Your task to perform on an android device: turn vacation reply on in the gmail app Image 0: 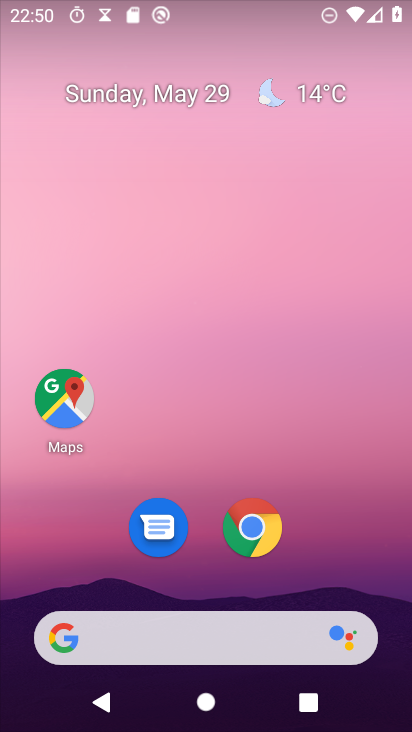
Step 0: press home button
Your task to perform on an android device: turn vacation reply on in the gmail app Image 1: 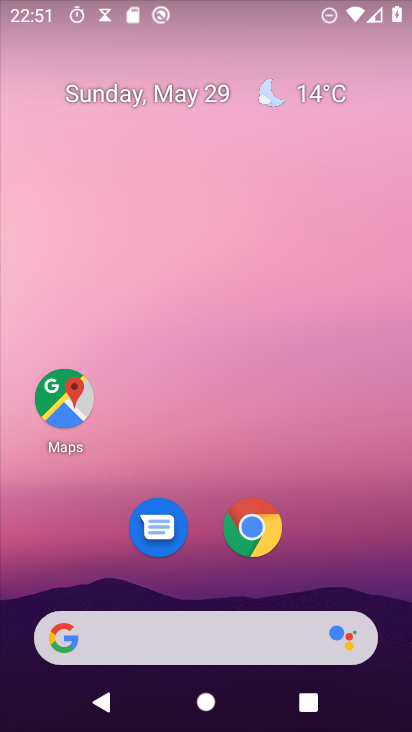
Step 1: drag from (192, 637) to (216, 114)
Your task to perform on an android device: turn vacation reply on in the gmail app Image 2: 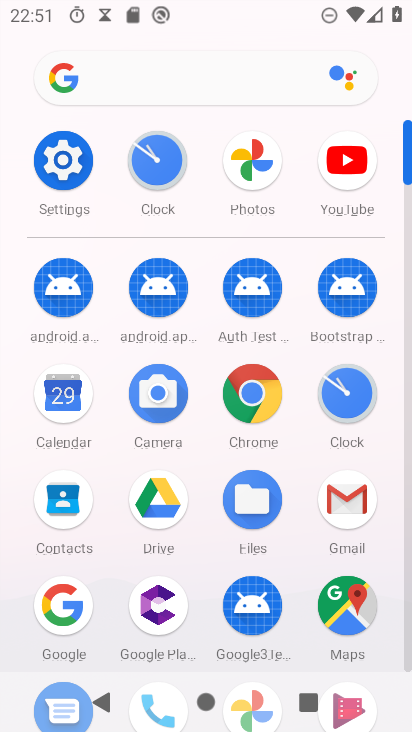
Step 2: click (354, 506)
Your task to perform on an android device: turn vacation reply on in the gmail app Image 3: 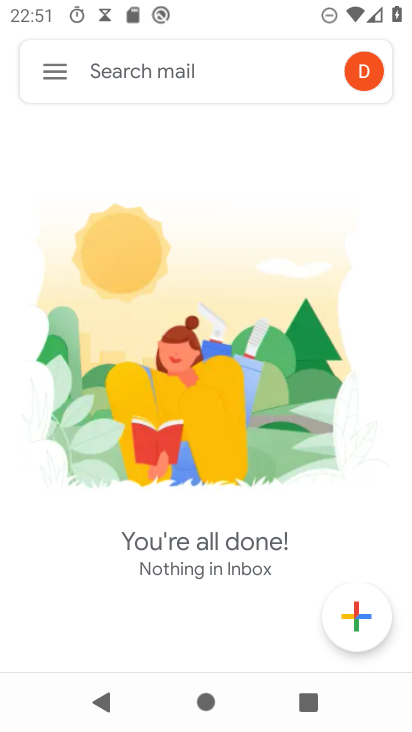
Step 3: click (49, 77)
Your task to perform on an android device: turn vacation reply on in the gmail app Image 4: 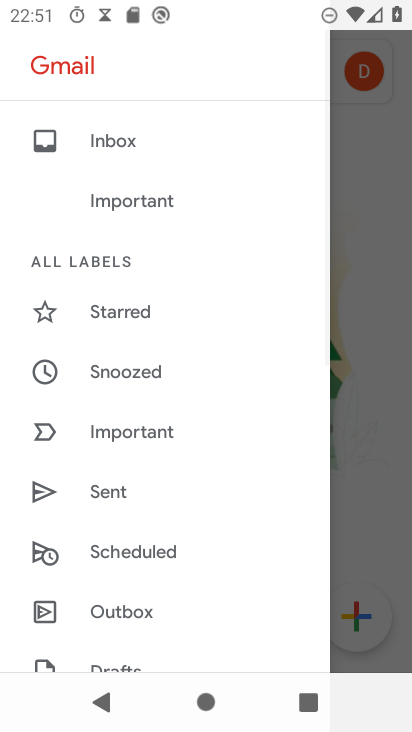
Step 4: drag from (182, 627) to (251, 73)
Your task to perform on an android device: turn vacation reply on in the gmail app Image 5: 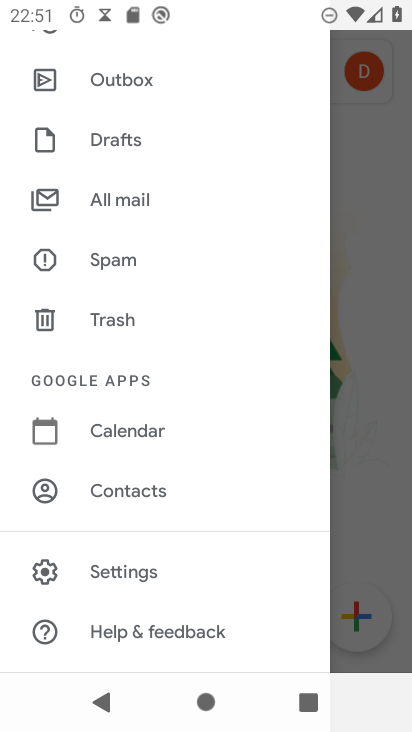
Step 5: drag from (190, 533) to (248, 205)
Your task to perform on an android device: turn vacation reply on in the gmail app Image 6: 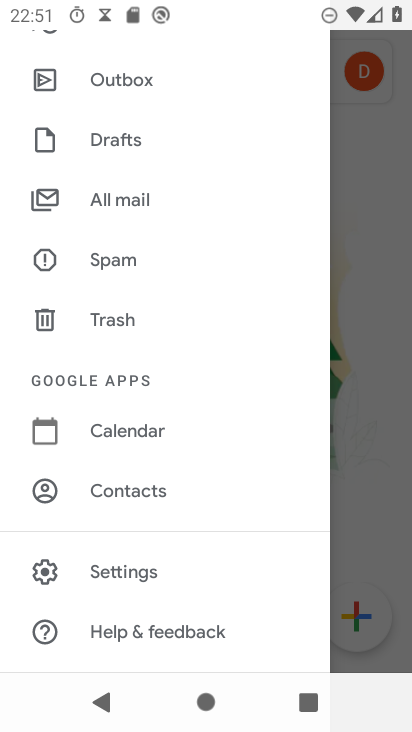
Step 6: click (151, 567)
Your task to perform on an android device: turn vacation reply on in the gmail app Image 7: 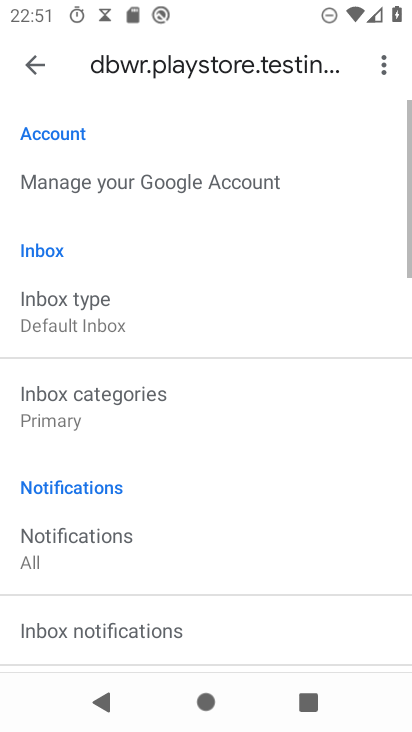
Step 7: drag from (200, 630) to (278, 58)
Your task to perform on an android device: turn vacation reply on in the gmail app Image 8: 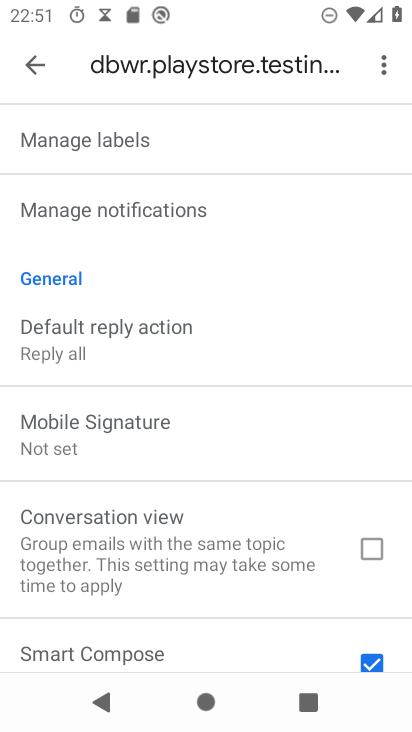
Step 8: drag from (215, 615) to (344, 86)
Your task to perform on an android device: turn vacation reply on in the gmail app Image 9: 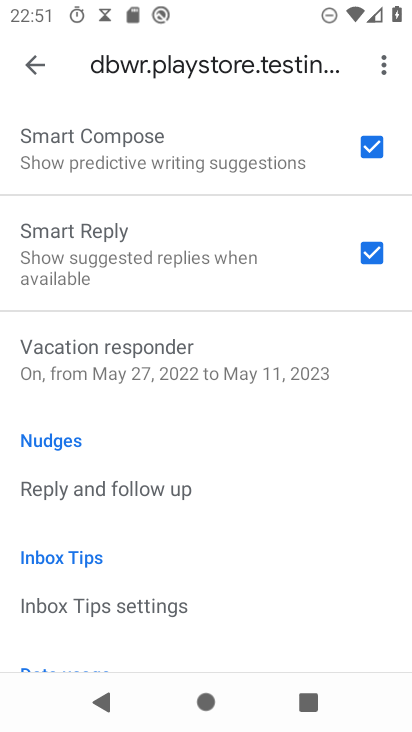
Step 9: click (139, 375)
Your task to perform on an android device: turn vacation reply on in the gmail app Image 10: 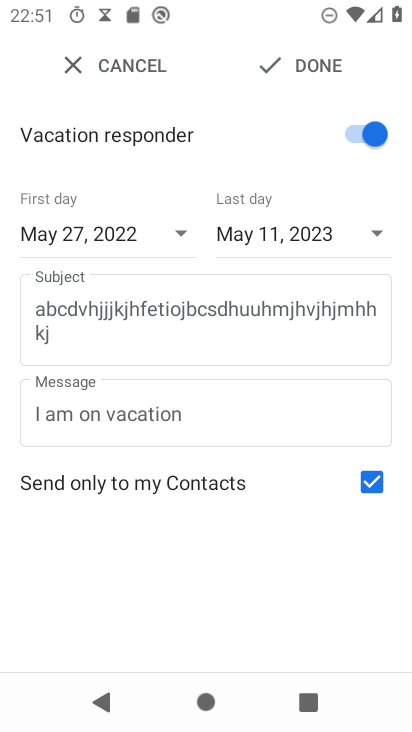
Step 10: task complete